Your task to perform on an android device: What's on my calendar tomorrow? Image 0: 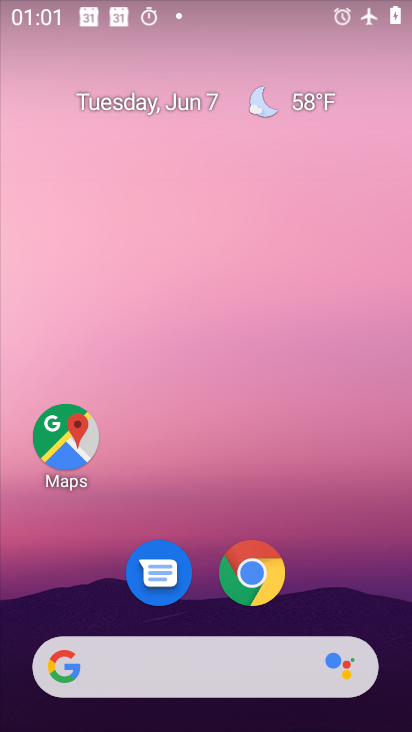
Step 0: press home button
Your task to perform on an android device: What's on my calendar tomorrow? Image 1: 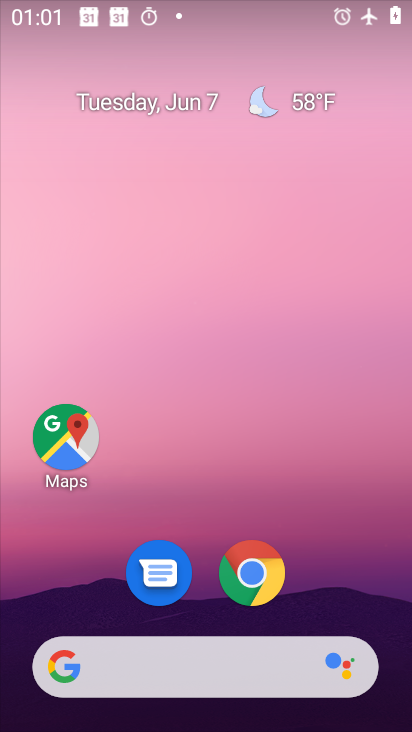
Step 1: drag from (349, 598) to (286, 330)
Your task to perform on an android device: What's on my calendar tomorrow? Image 2: 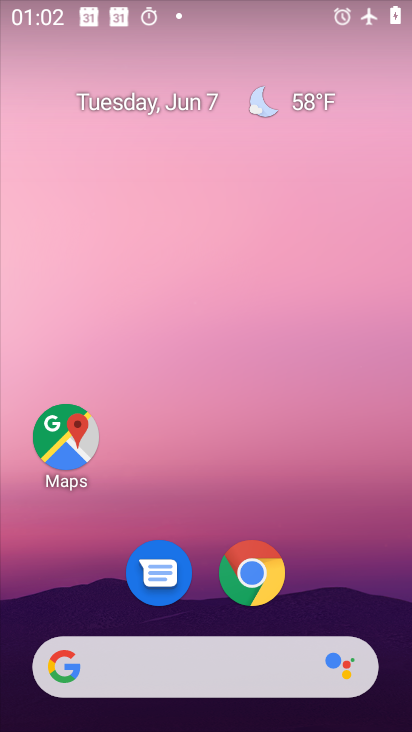
Step 2: drag from (351, 592) to (350, 137)
Your task to perform on an android device: What's on my calendar tomorrow? Image 3: 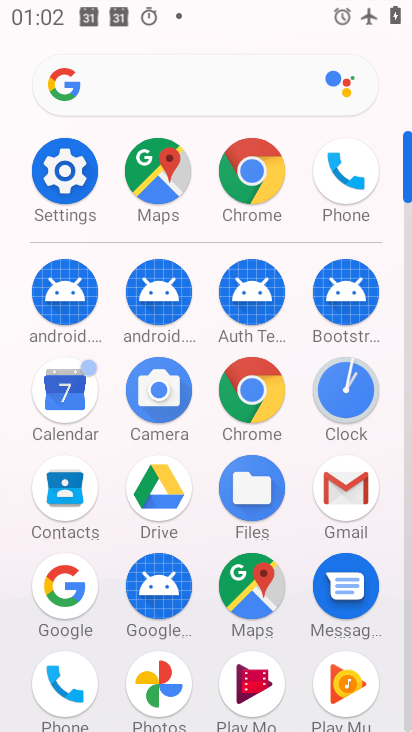
Step 3: click (71, 383)
Your task to perform on an android device: What's on my calendar tomorrow? Image 4: 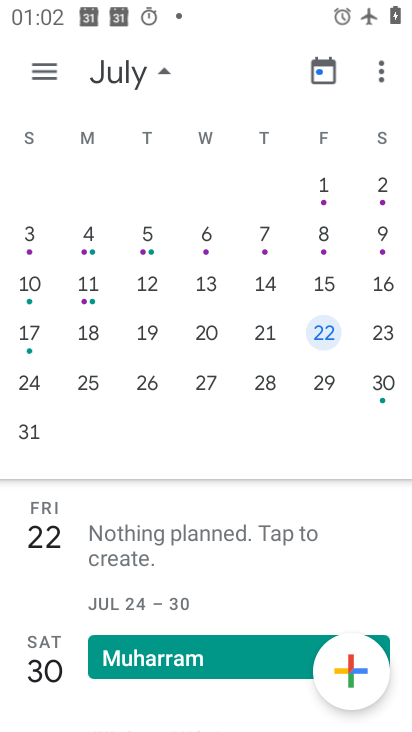
Step 4: drag from (52, 198) to (394, 192)
Your task to perform on an android device: What's on my calendar tomorrow? Image 5: 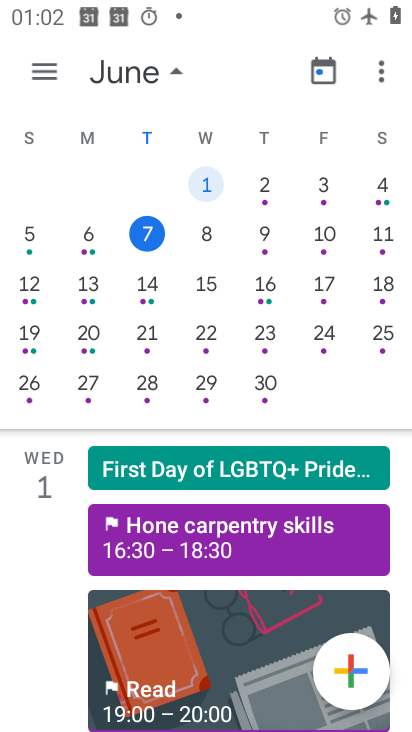
Step 5: click (203, 230)
Your task to perform on an android device: What's on my calendar tomorrow? Image 6: 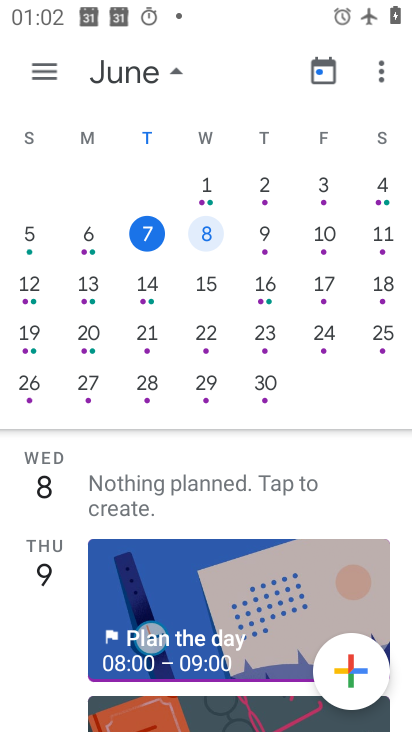
Step 6: task complete